Your task to perform on an android device: Open ESPN.com Image 0: 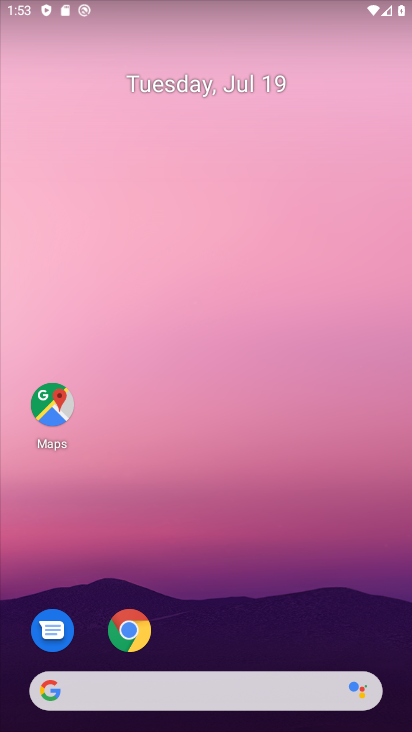
Step 0: click (250, 695)
Your task to perform on an android device: Open ESPN.com Image 1: 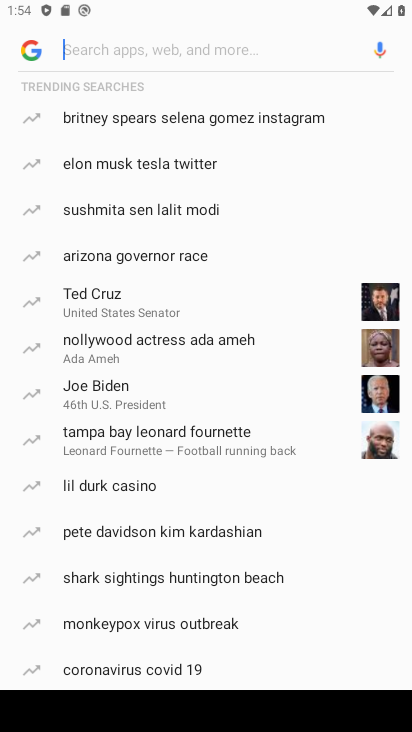
Step 1: type "espn.com"
Your task to perform on an android device: Open ESPN.com Image 2: 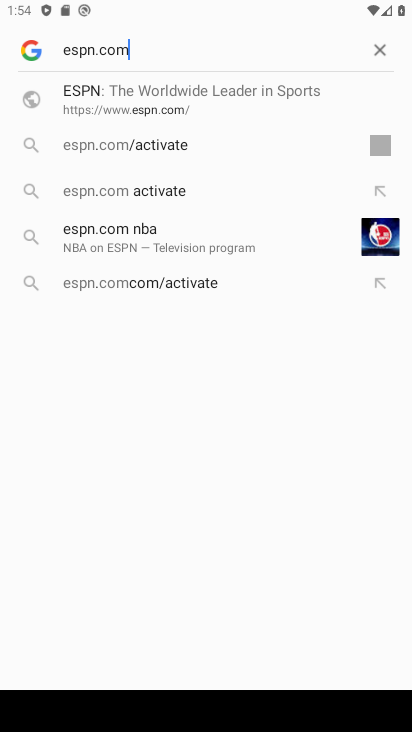
Step 2: click (113, 105)
Your task to perform on an android device: Open ESPN.com Image 3: 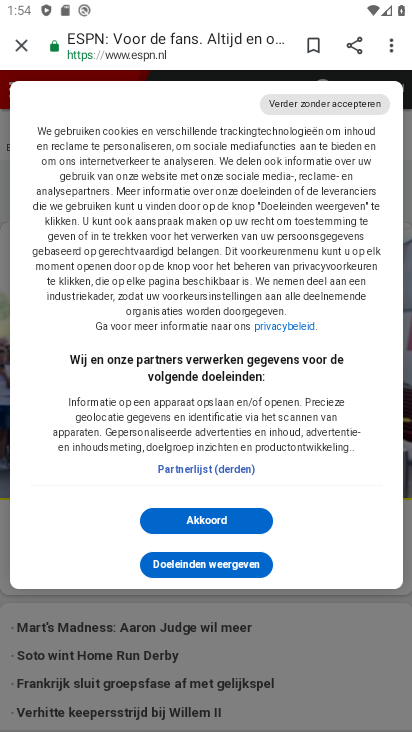
Step 3: task complete